Your task to perform on an android device: Go to Google maps Image 0: 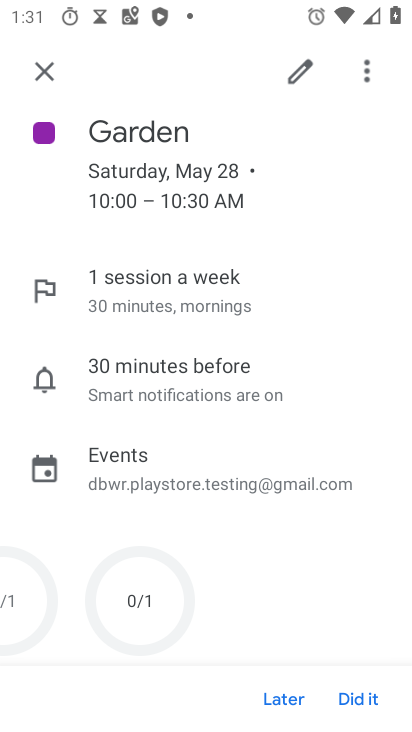
Step 0: press home button
Your task to perform on an android device: Go to Google maps Image 1: 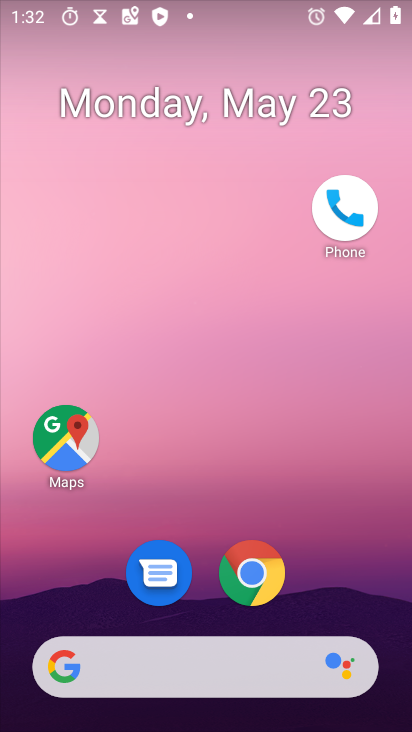
Step 1: click (70, 445)
Your task to perform on an android device: Go to Google maps Image 2: 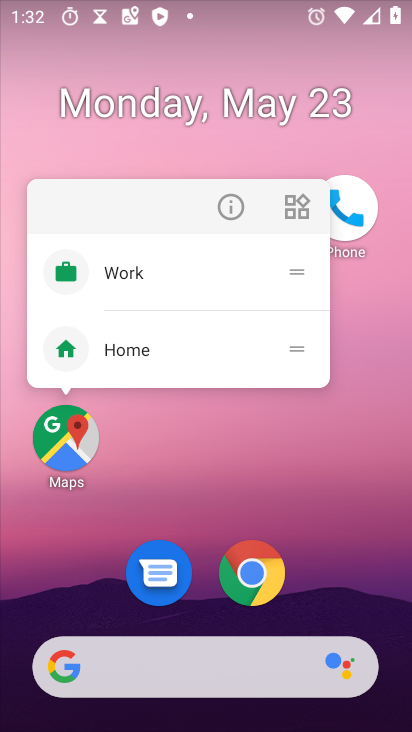
Step 2: click (68, 452)
Your task to perform on an android device: Go to Google maps Image 3: 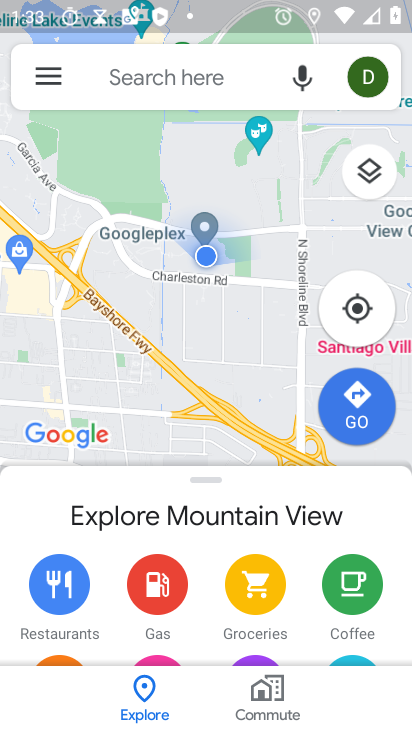
Step 3: task complete